Your task to perform on an android device: check google app version Image 0: 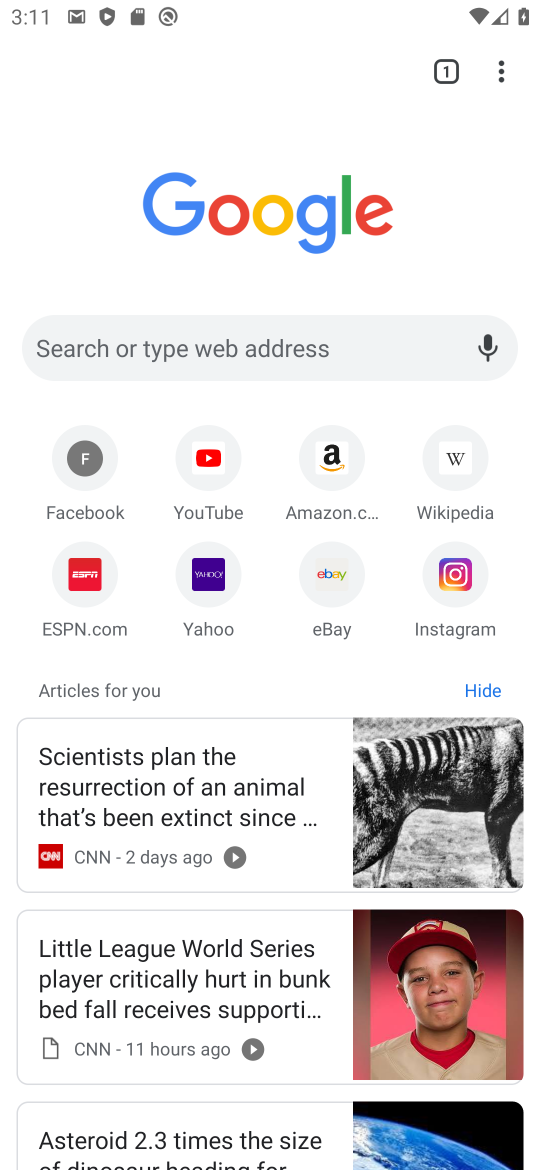
Step 0: press home button
Your task to perform on an android device: check google app version Image 1: 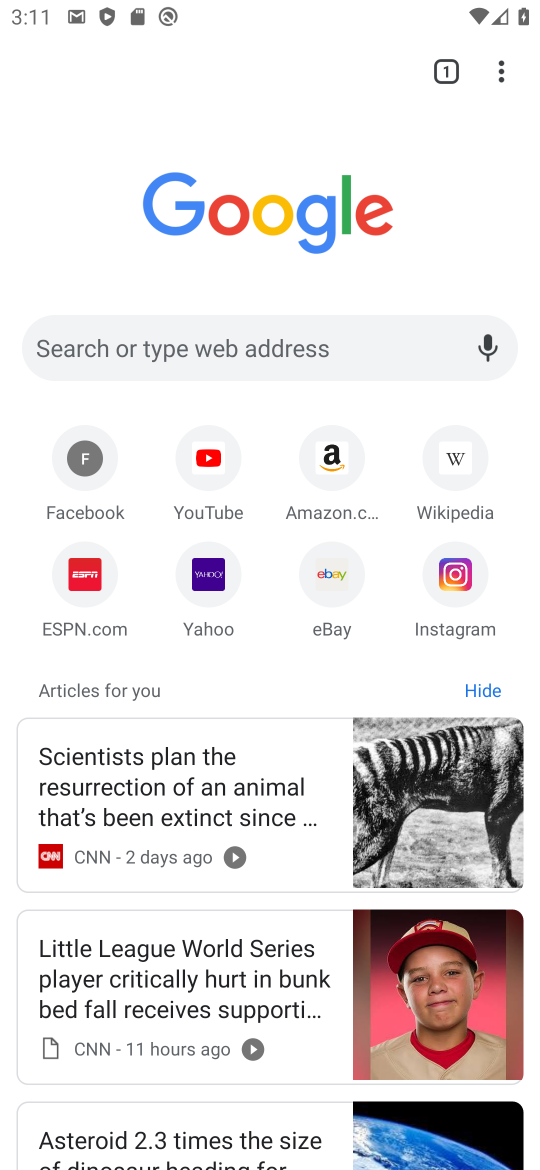
Step 1: press home button
Your task to perform on an android device: check google app version Image 2: 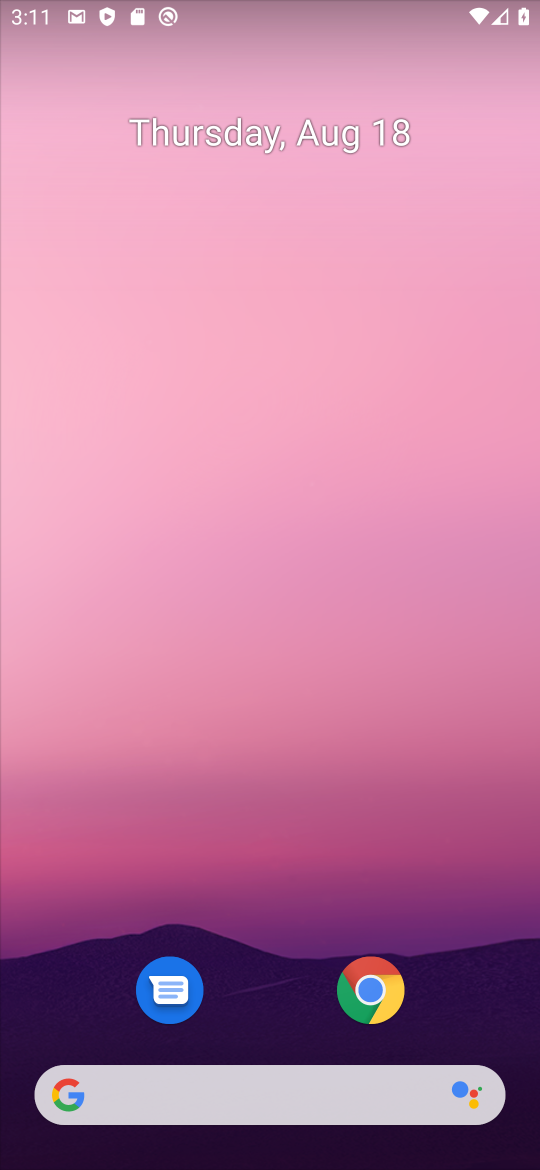
Step 2: drag from (285, 978) to (228, 731)
Your task to perform on an android device: check google app version Image 3: 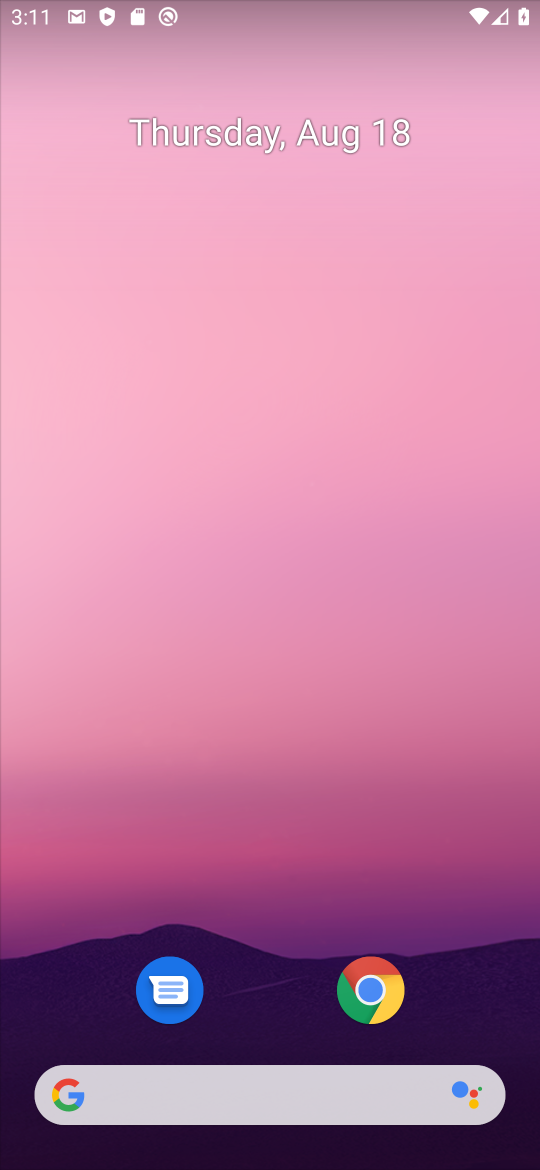
Step 3: drag from (304, 842) to (248, 388)
Your task to perform on an android device: check google app version Image 4: 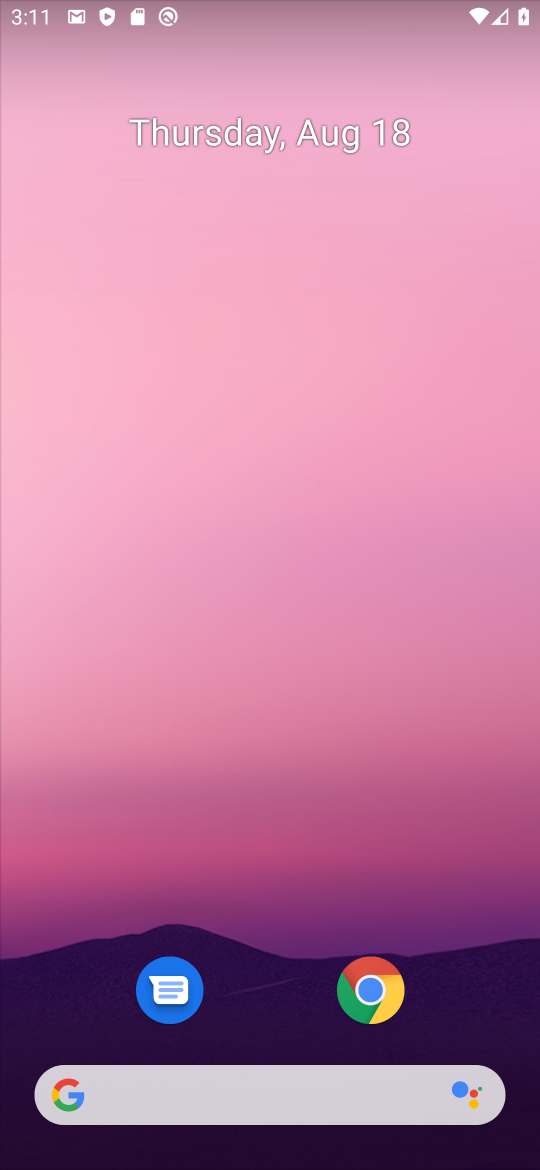
Step 4: drag from (261, 868) to (119, 126)
Your task to perform on an android device: check google app version Image 5: 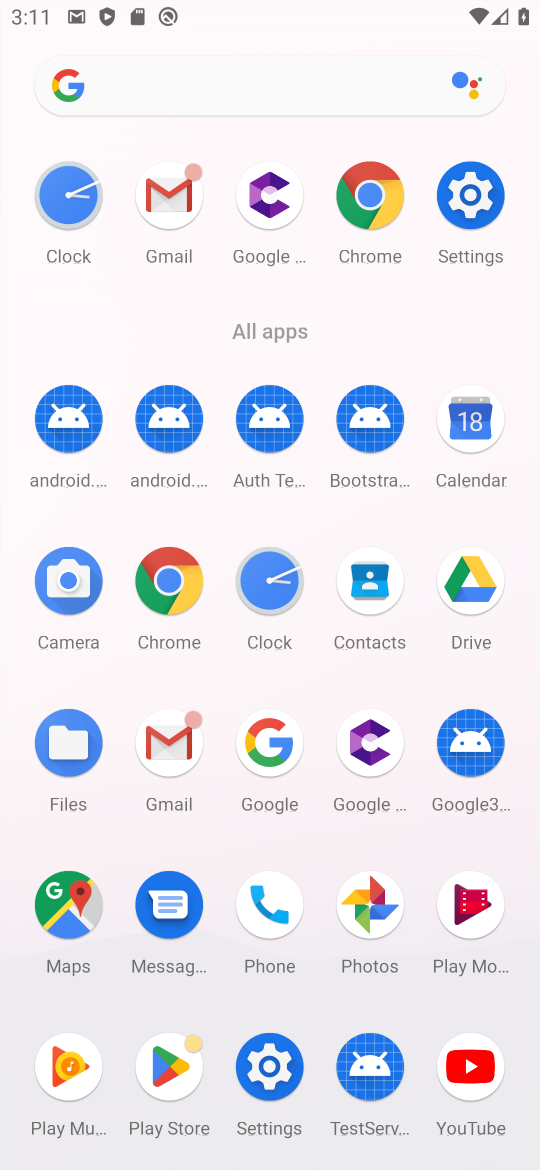
Step 5: click (275, 753)
Your task to perform on an android device: check google app version Image 6: 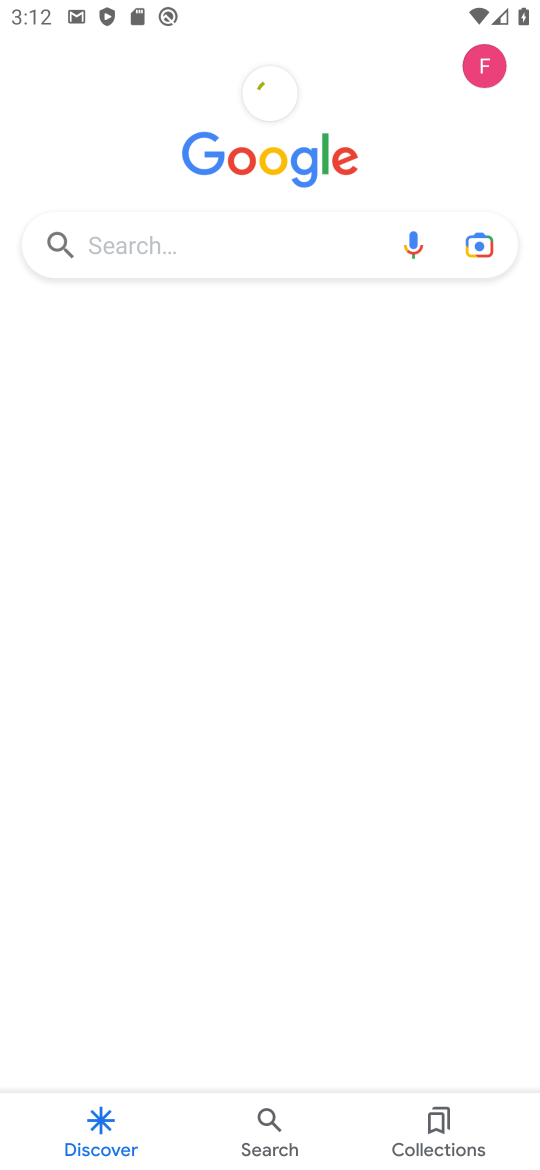
Step 6: press home button
Your task to perform on an android device: check google app version Image 7: 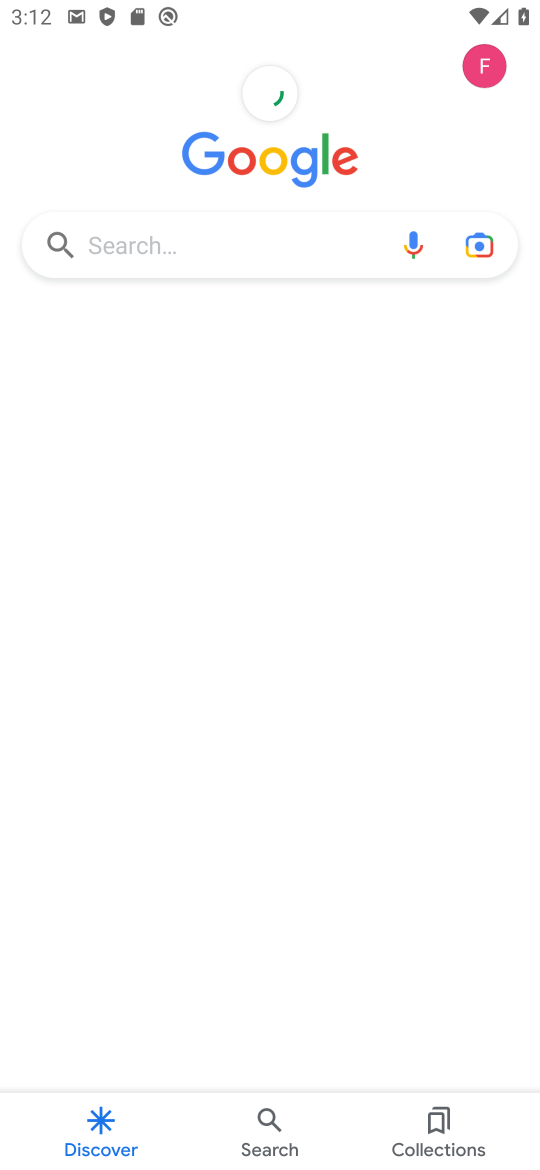
Step 7: press home button
Your task to perform on an android device: check google app version Image 8: 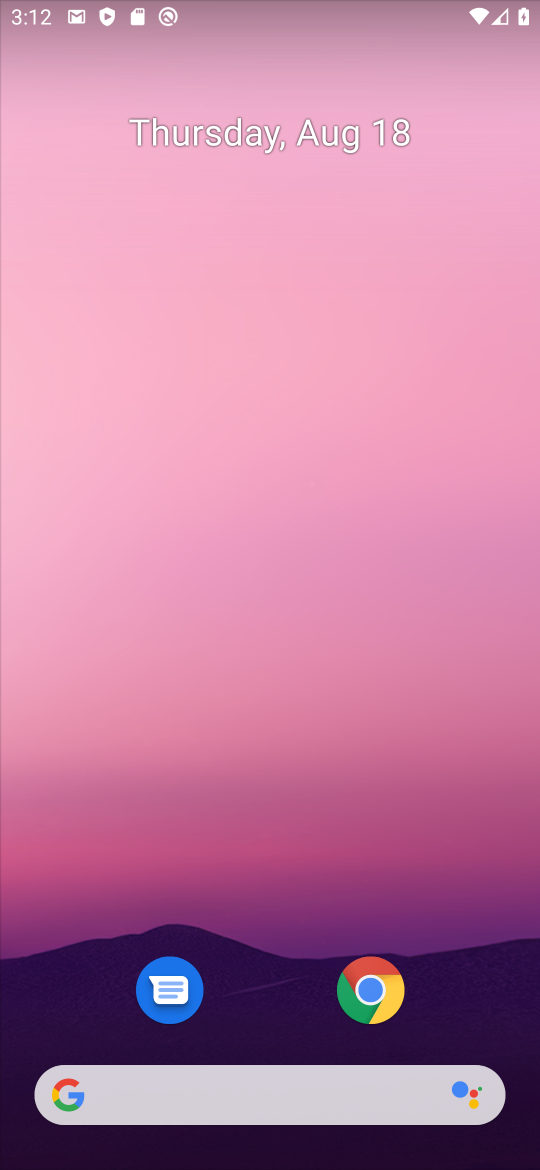
Step 8: drag from (262, 939) to (191, 124)
Your task to perform on an android device: check google app version Image 9: 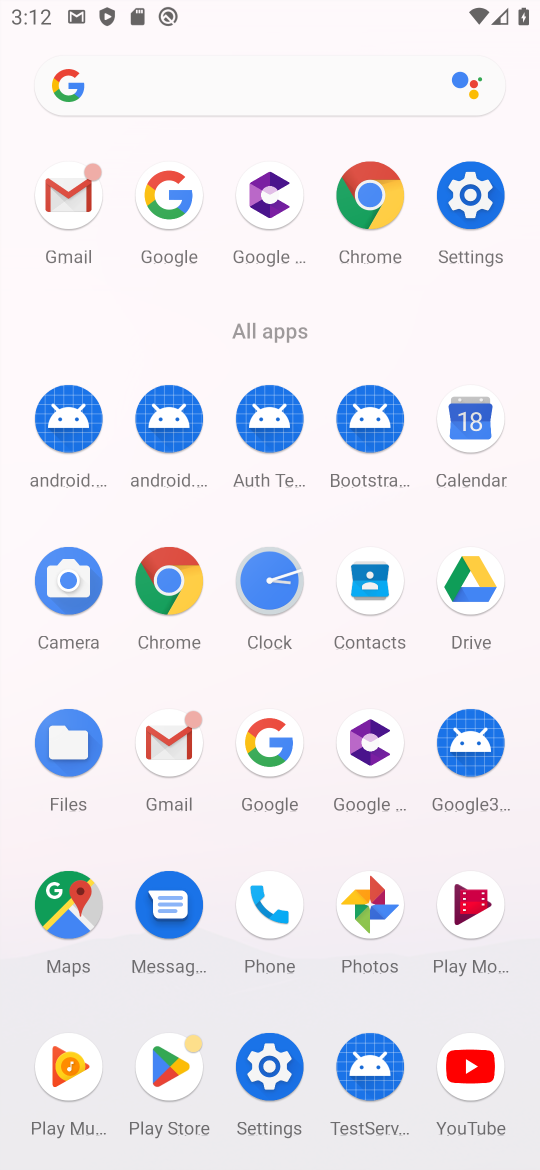
Step 9: click (272, 732)
Your task to perform on an android device: check google app version Image 10: 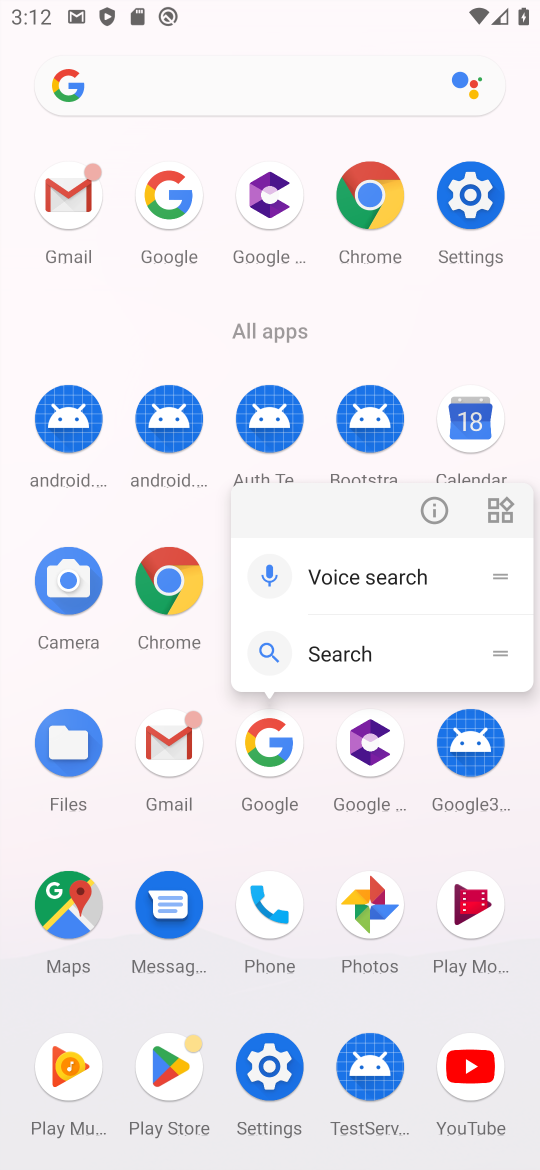
Step 10: click (433, 506)
Your task to perform on an android device: check google app version Image 11: 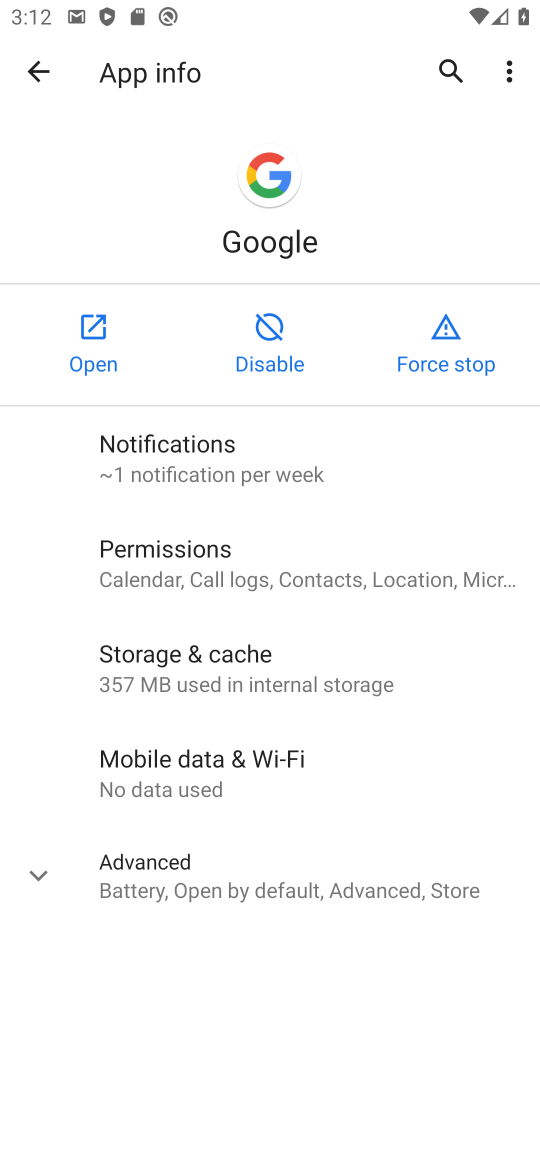
Step 11: click (238, 852)
Your task to perform on an android device: check google app version Image 12: 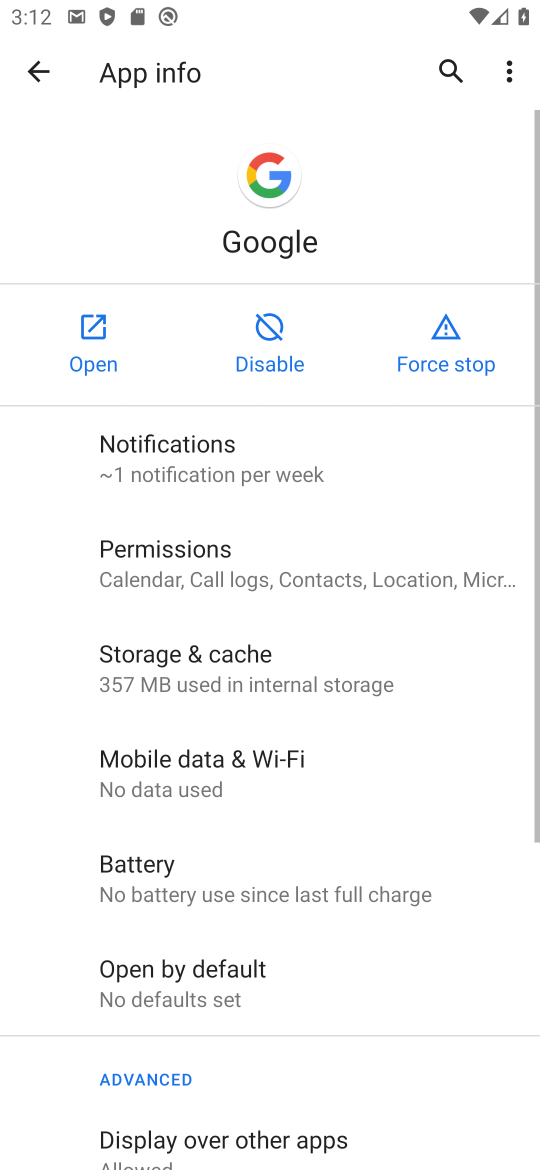
Step 12: task complete